Your task to perform on an android device: read, delete, or share a saved page in the chrome app Image 0: 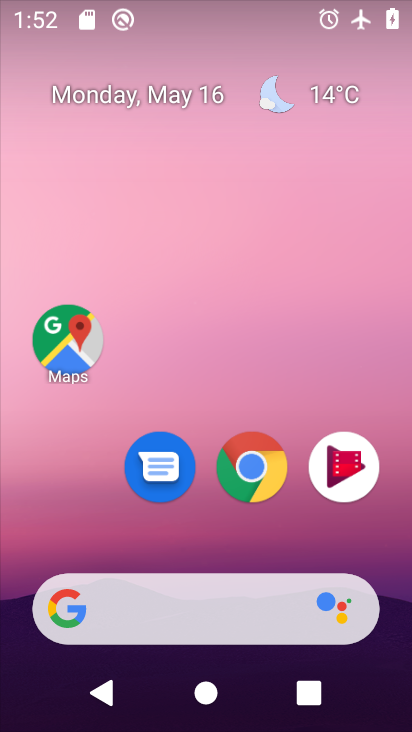
Step 0: click (261, 471)
Your task to perform on an android device: read, delete, or share a saved page in the chrome app Image 1: 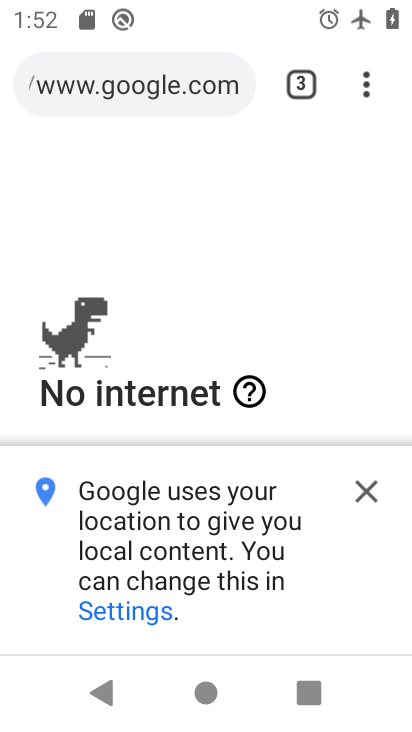
Step 1: click (354, 77)
Your task to perform on an android device: read, delete, or share a saved page in the chrome app Image 2: 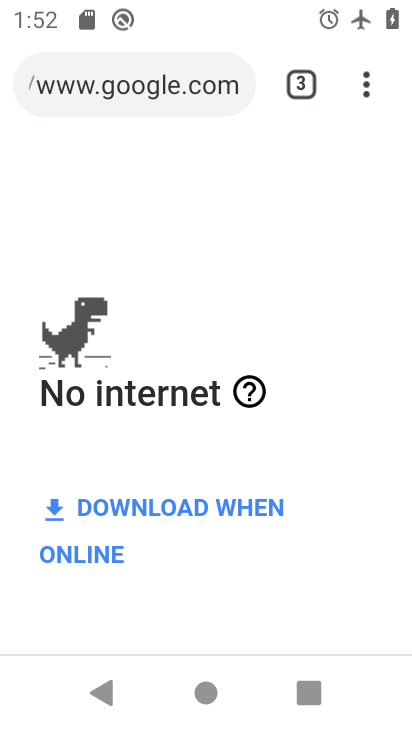
Step 2: click (365, 90)
Your task to perform on an android device: read, delete, or share a saved page in the chrome app Image 3: 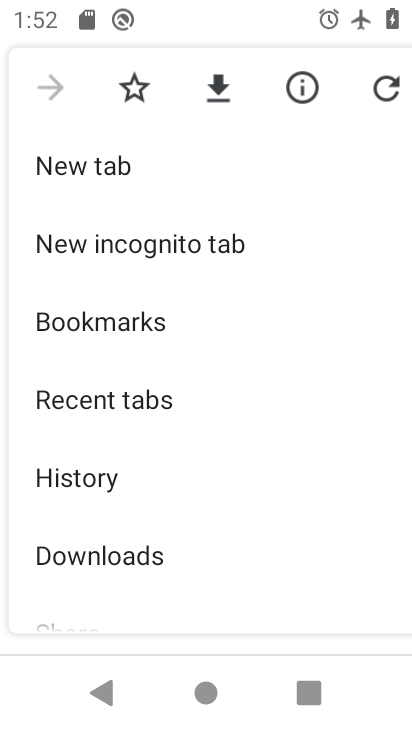
Step 3: drag from (162, 536) to (216, 287)
Your task to perform on an android device: read, delete, or share a saved page in the chrome app Image 4: 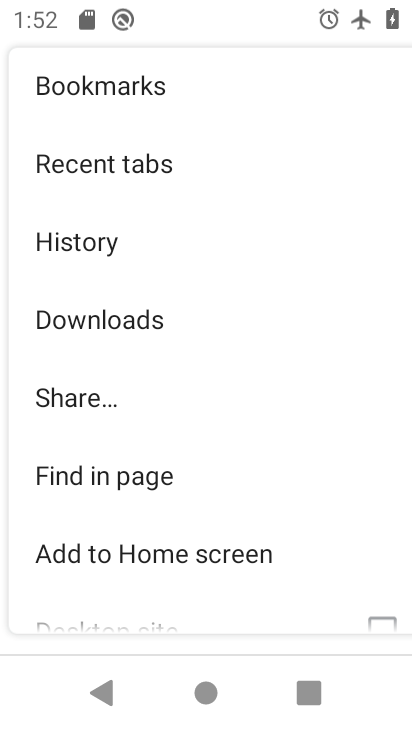
Step 4: click (104, 324)
Your task to perform on an android device: read, delete, or share a saved page in the chrome app Image 5: 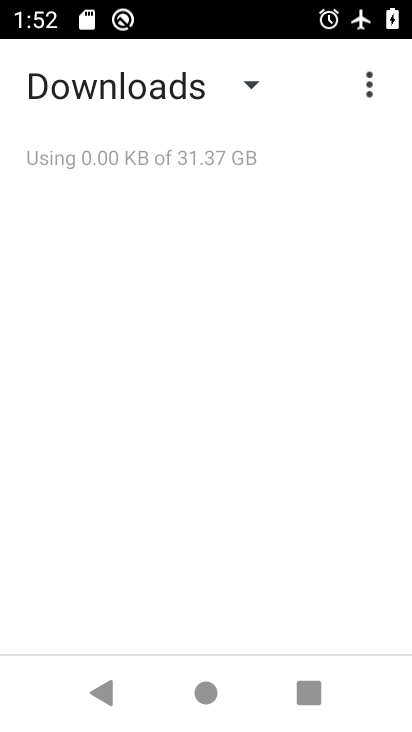
Step 5: click (235, 86)
Your task to perform on an android device: read, delete, or share a saved page in the chrome app Image 6: 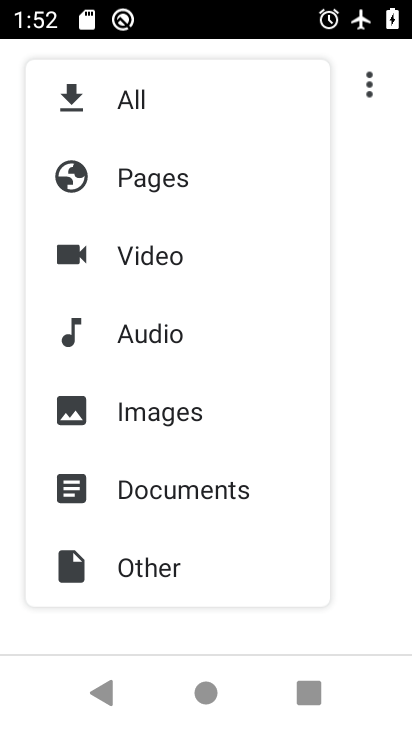
Step 6: click (167, 196)
Your task to perform on an android device: read, delete, or share a saved page in the chrome app Image 7: 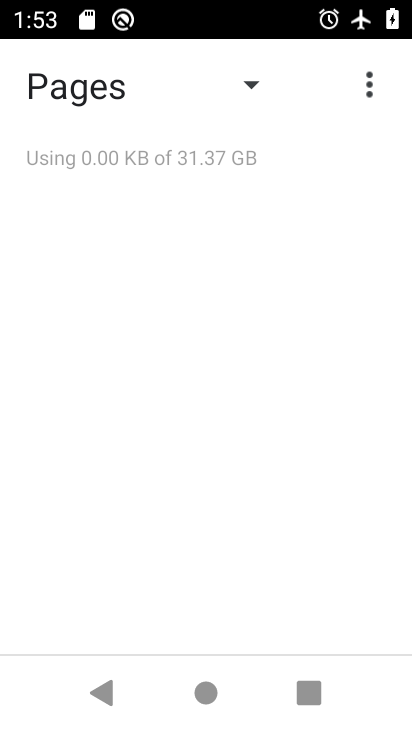
Step 7: task complete